Your task to perform on an android device: change alarm snooze length Image 0: 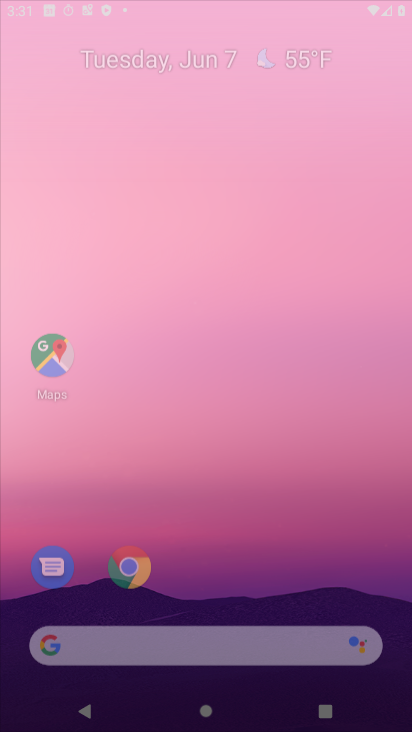
Step 0: press home button
Your task to perform on an android device: change alarm snooze length Image 1: 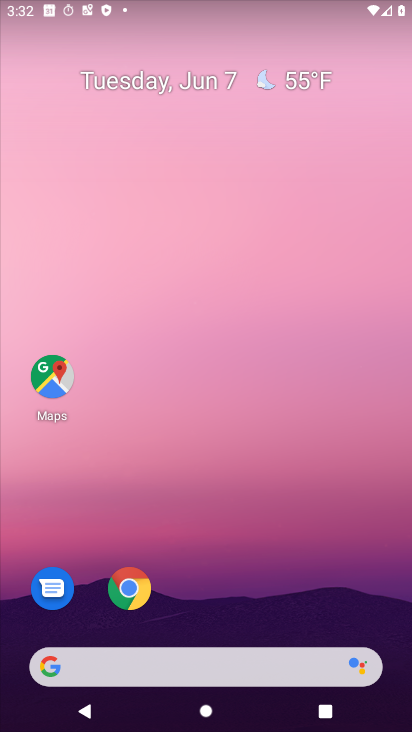
Step 1: drag from (206, 632) to (226, 61)
Your task to perform on an android device: change alarm snooze length Image 2: 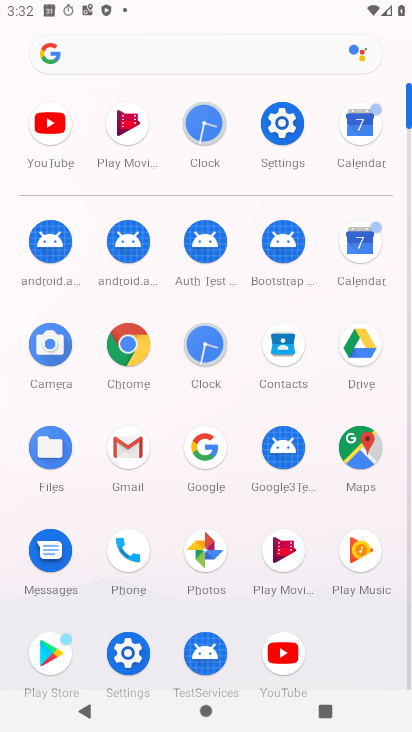
Step 2: click (204, 344)
Your task to perform on an android device: change alarm snooze length Image 3: 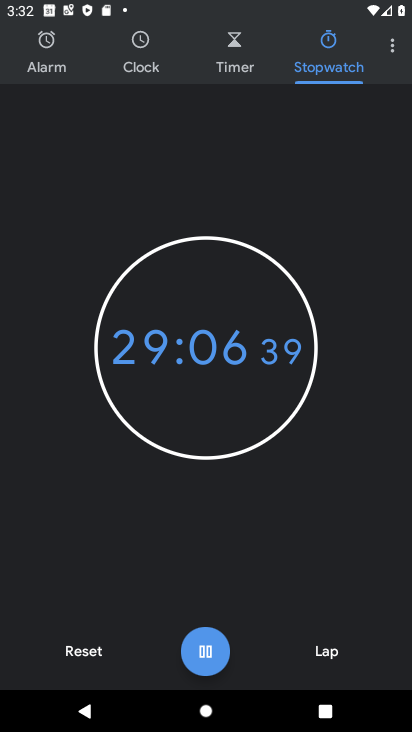
Step 3: click (390, 42)
Your task to perform on an android device: change alarm snooze length Image 4: 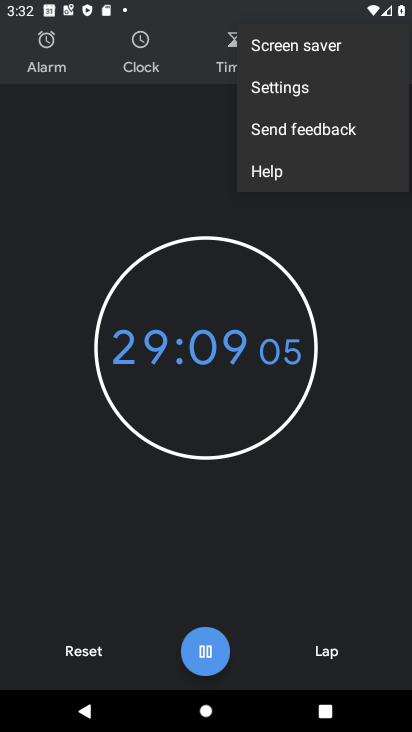
Step 4: click (267, 85)
Your task to perform on an android device: change alarm snooze length Image 5: 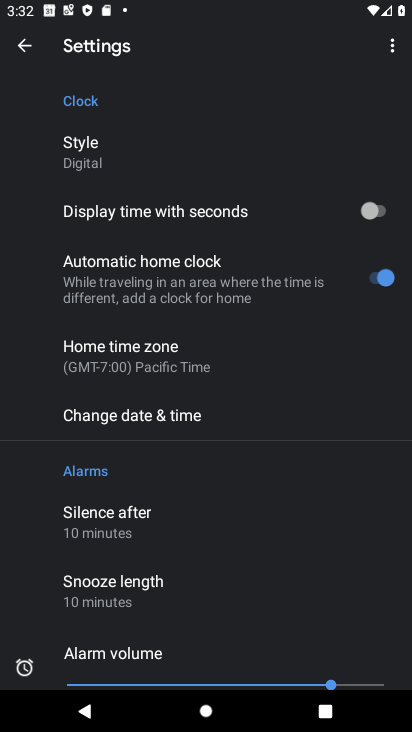
Step 5: click (94, 582)
Your task to perform on an android device: change alarm snooze length Image 6: 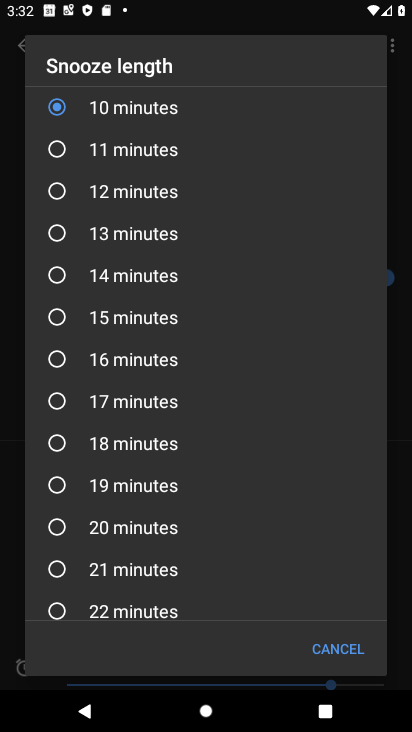
Step 6: click (64, 361)
Your task to perform on an android device: change alarm snooze length Image 7: 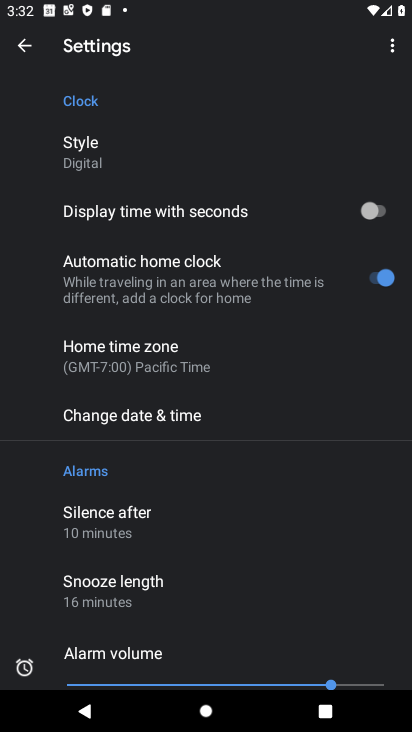
Step 7: task complete